Your task to perform on an android device: Open Google Chrome and click the shortcut for Amazon.com Image 0: 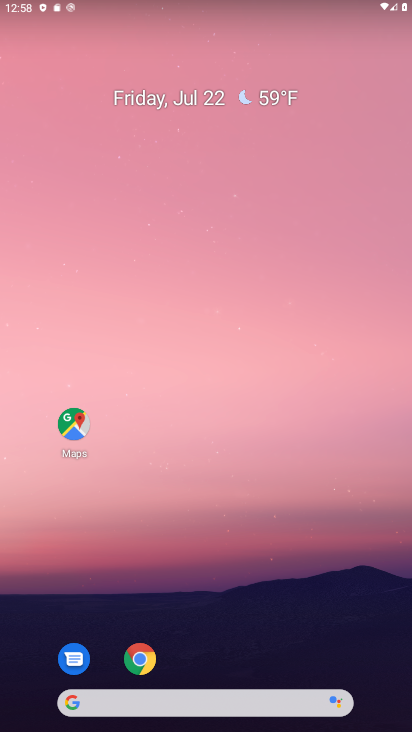
Step 0: click (155, 651)
Your task to perform on an android device: Open Google Chrome and click the shortcut for Amazon.com Image 1: 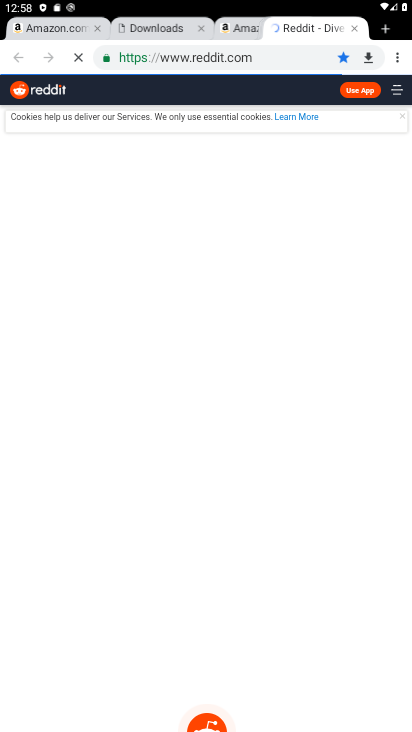
Step 1: click (383, 26)
Your task to perform on an android device: Open Google Chrome and click the shortcut for Amazon.com Image 2: 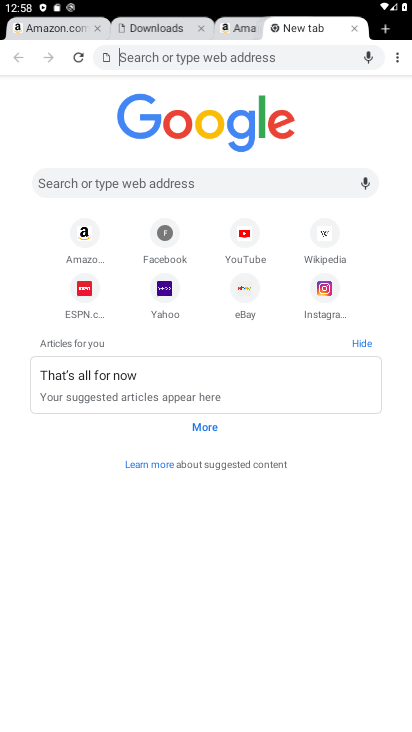
Step 2: click (70, 237)
Your task to perform on an android device: Open Google Chrome and click the shortcut for Amazon.com Image 3: 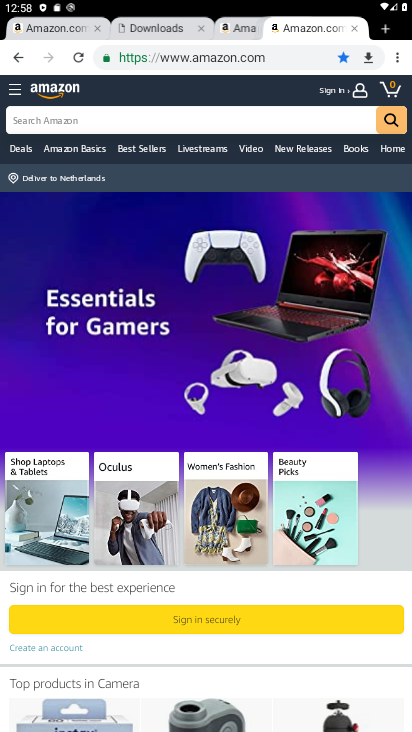
Step 3: task complete